Your task to perform on an android device: refresh tabs in the chrome app Image 0: 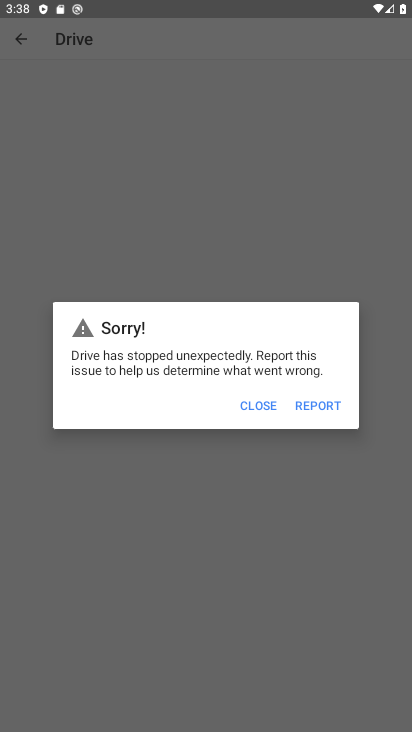
Step 0: press home button
Your task to perform on an android device: refresh tabs in the chrome app Image 1: 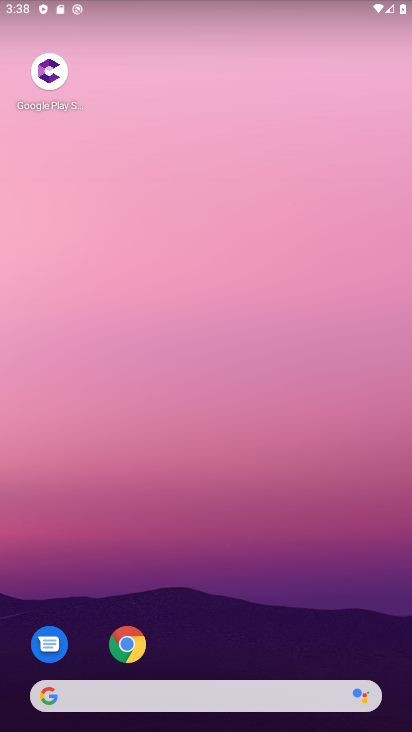
Step 1: click (123, 639)
Your task to perform on an android device: refresh tabs in the chrome app Image 2: 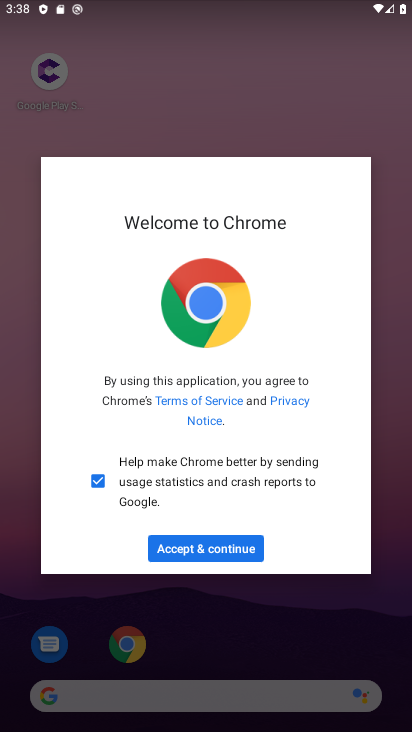
Step 2: click (178, 554)
Your task to perform on an android device: refresh tabs in the chrome app Image 3: 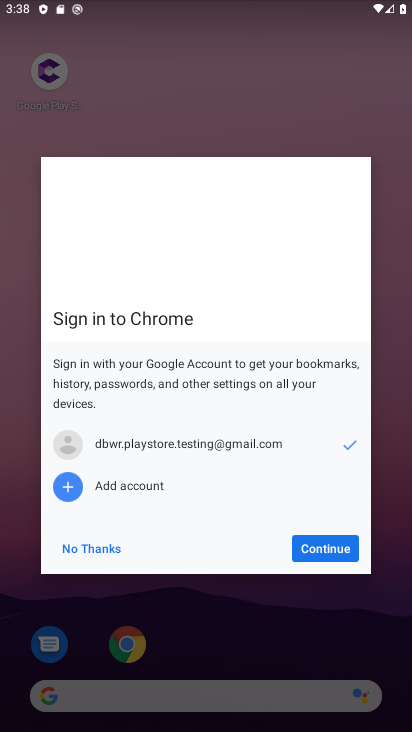
Step 3: click (316, 554)
Your task to perform on an android device: refresh tabs in the chrome app Image 4: 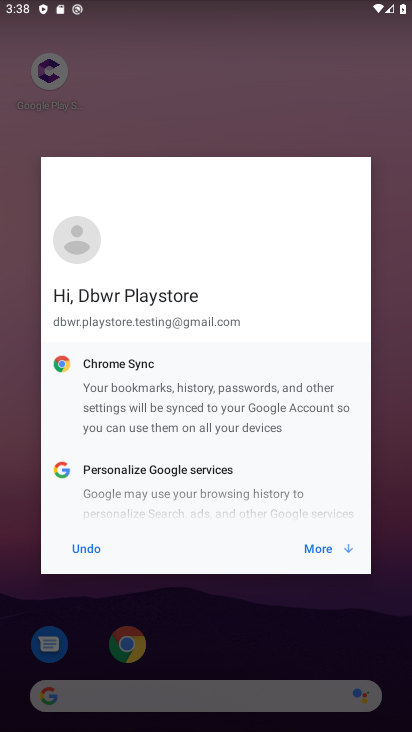
Step 4: click (316, 554)
Your task to perform on an android device: refresh tabs in the chrome app Image 5: 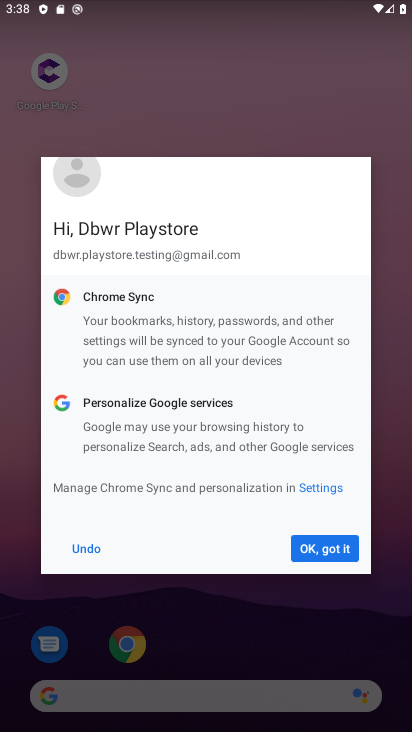
Step 5: click (316, 554)
Your task to perform on an android device: refresh tabs in the chrome app Image 6: 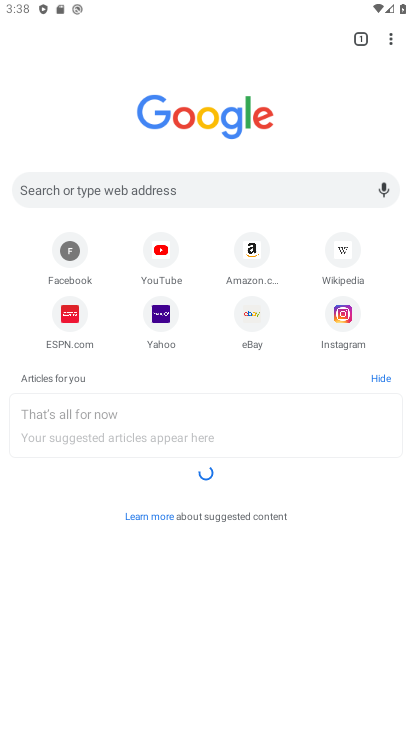
Step 6: click (390, 50)
Your task to perform on an android device: refresh tabs in the chrome app Image 7: 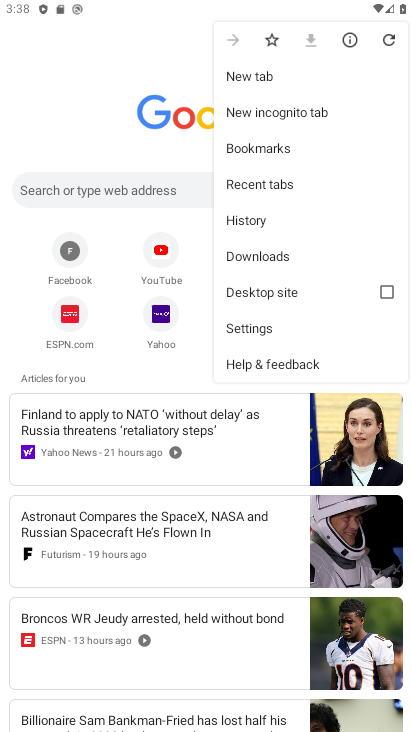
Step 7: click (395, 43)
Your task to perform on an android device: refresh tabs in the chrome app Image 8: 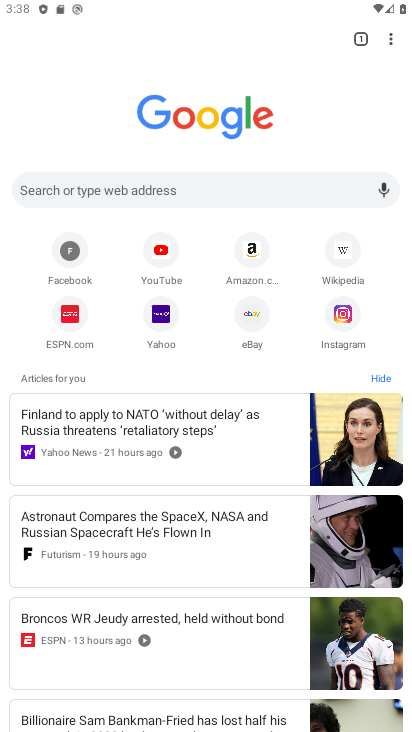
Step 8: task complete